Your task to perform on an android device: turn on wifi Image 0: 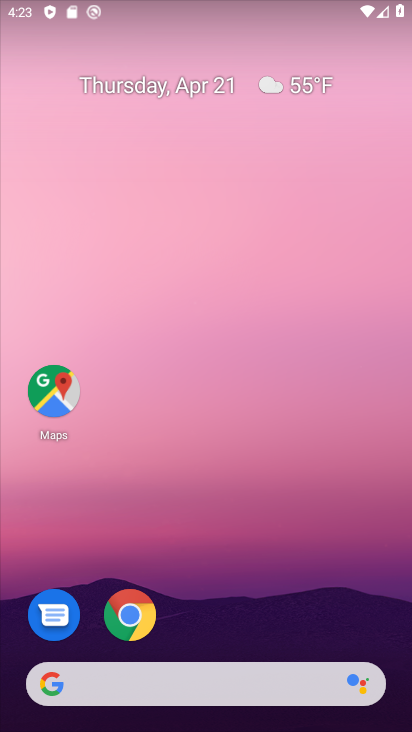
Step 0: drag from (196, 609) to (196, 175)
Your task to perform on an android device: turn on wifi Image 1: 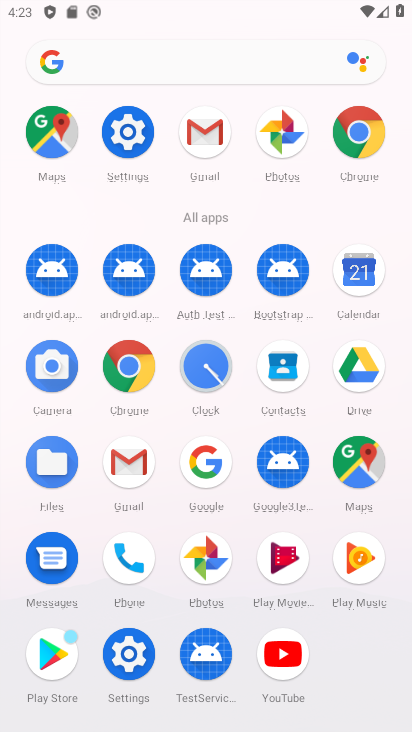
Step 1: click (132, 143)
Your task to perform on an android device: turn on wifi Image 2: 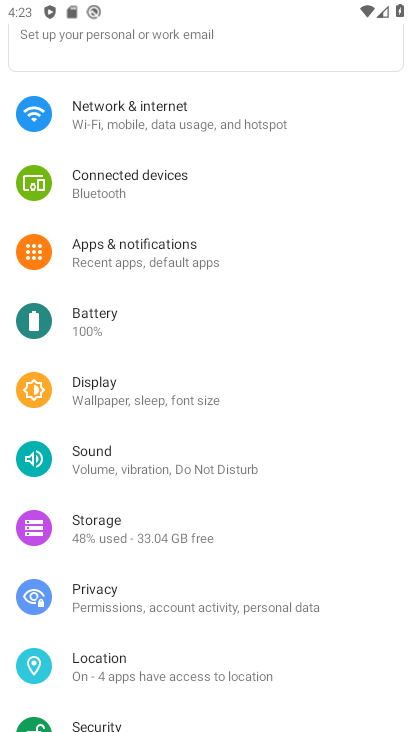
Step 2: click (139, 133)
Your task to perform on an android device: turn on wifi Image 3: 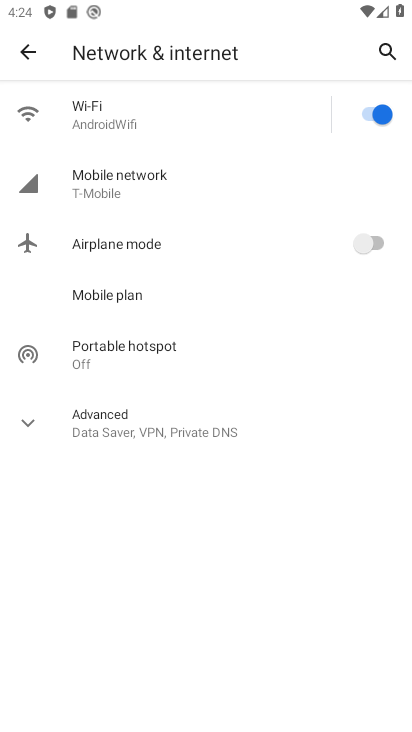
Step 3: task complete